Your task to perform on an android device: Open CNN.com Image 0: 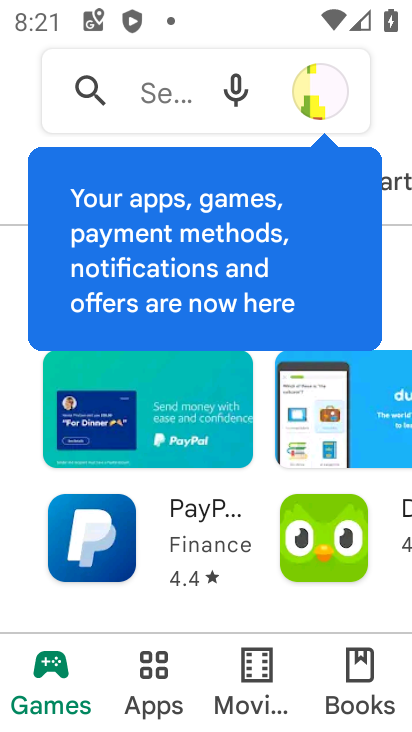
Step 0: press back button
Your task to perform on an android device: Open CNN.com Image 1: 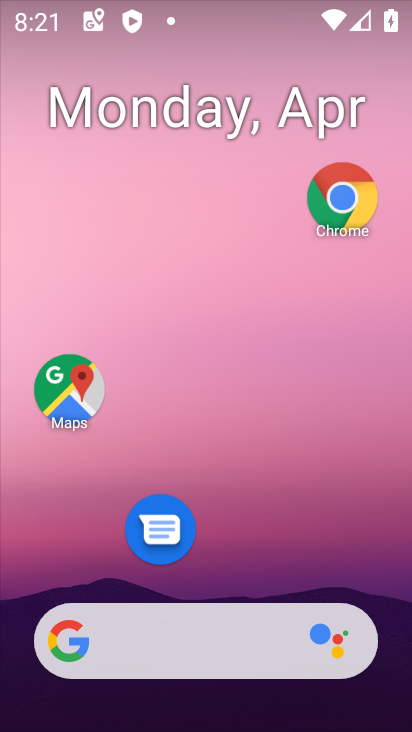
Step 1: click (339, 210)
Your task to perform on an android device: Open CNN.com Image 2: 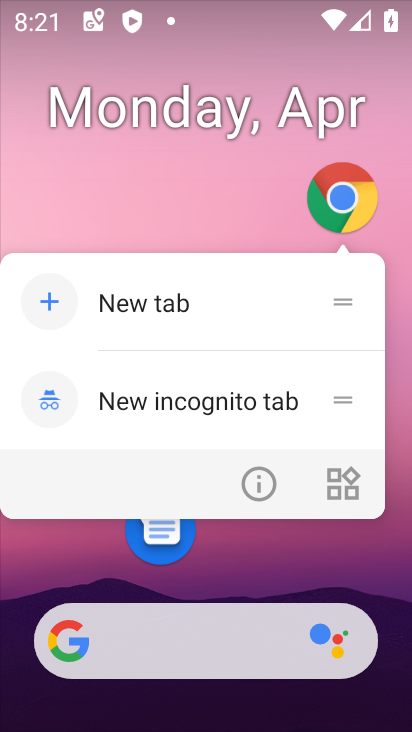
Step 2: click (354, 188)
Your task to perform on an android device: Open CNN.com Image 3: 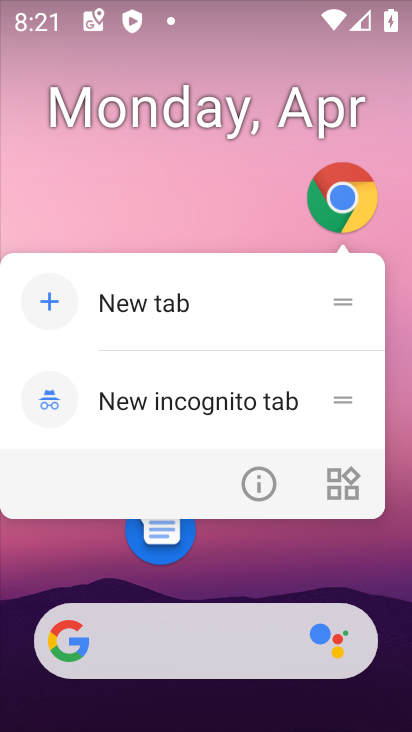
Step 3: click (354, 188)
Your task to perform on an android device: Open CNN.com Image 4: 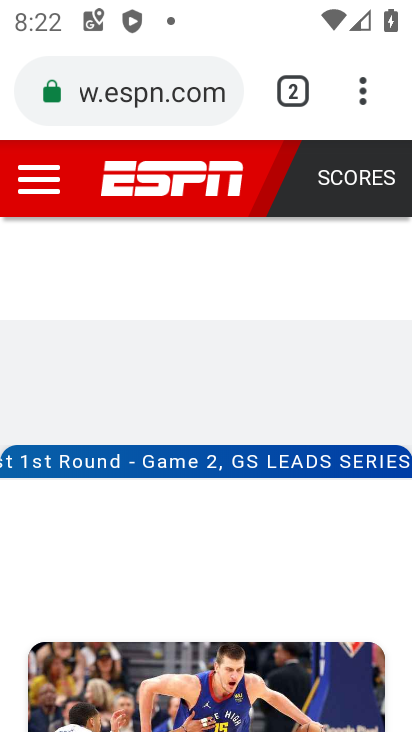
Step 4: click (270, 77)
Your task to perform on an android device: Open CNN.com Image 5: 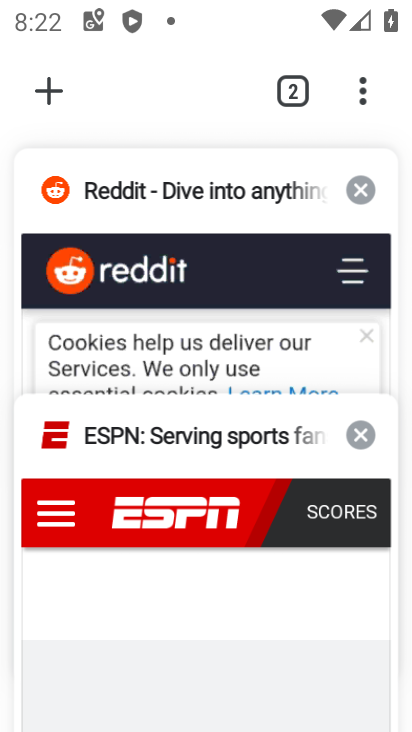
Step 5: click (67, 84)
Your task to perform on an android device: Open CNN.com Image 6: 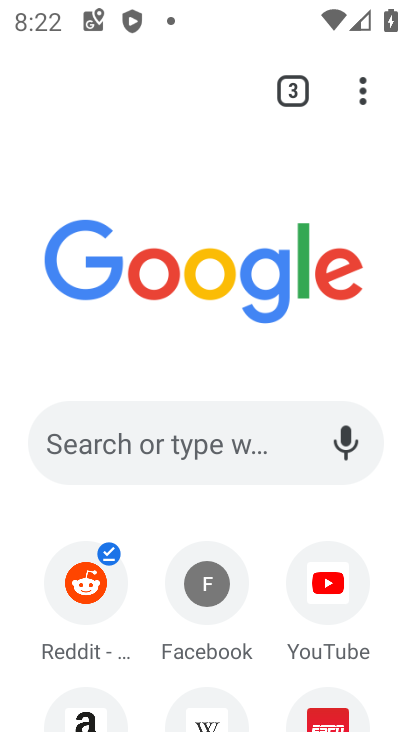
Step 6: click (175, 432)
Your task to perform on an android device: Open CNN.com Image 7: 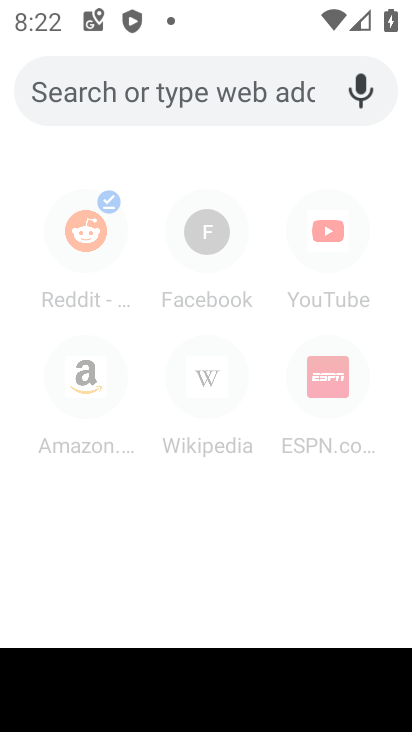
Step 7: click (111, 98)
Your task to perform on an android device: Open CNN.com Image 8: 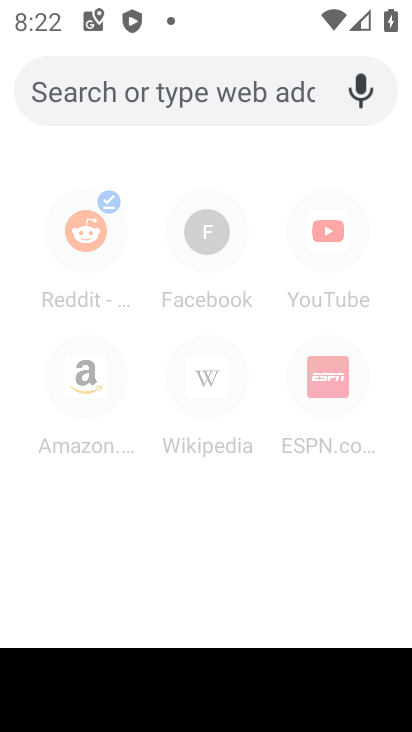
Step 8: type "cnn.com"
Your task to perform on an android device: Open CNN.com Image 9: 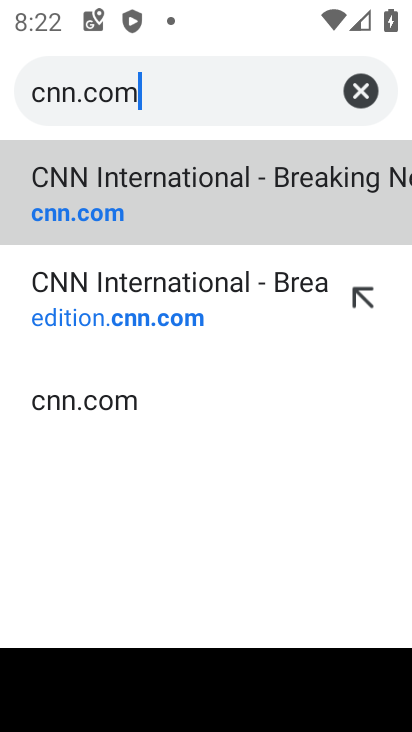
Step 9: click (203, 192)
Your task to perform on an android device: Open CNN.com Image 10: 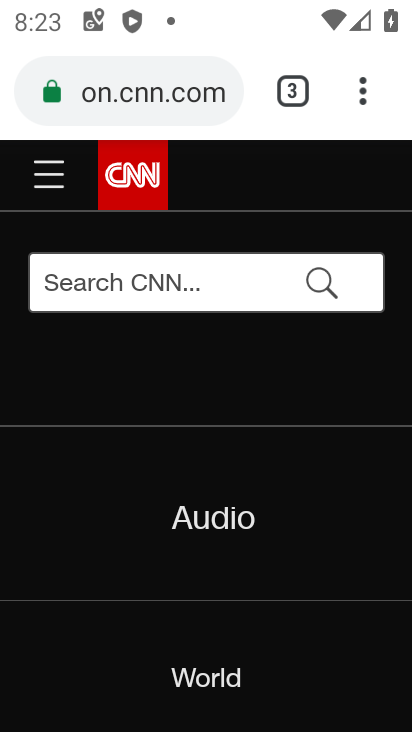
Step 10: task complete